Your task to perform on an android device: Go to Google maps Image 0: 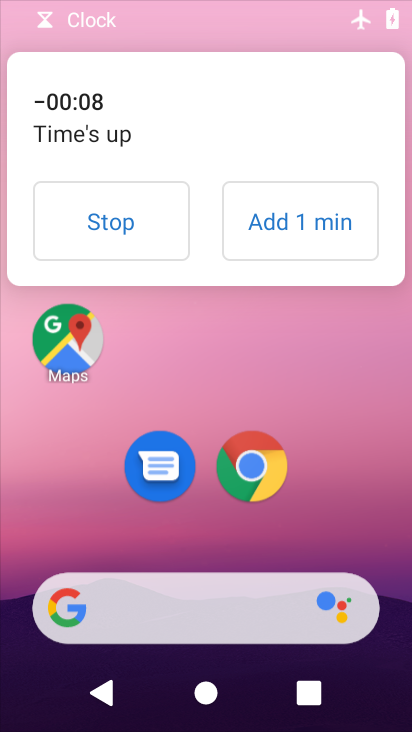
Step 0: click (151, 225)
Your task to perform on an android device: Go to Google maps Image 1: 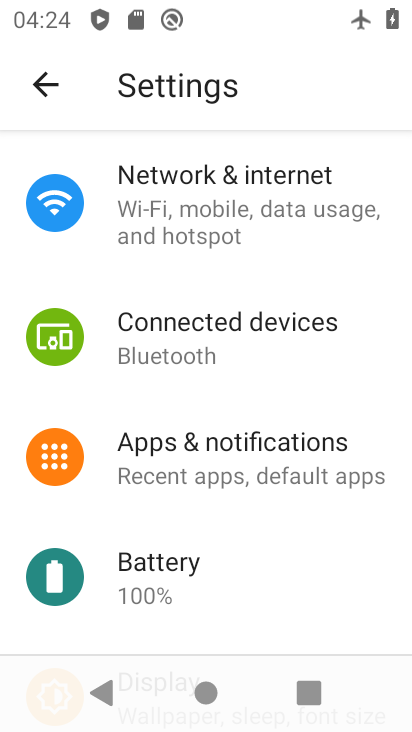
Step 1: press home button
Your task to perform on an android device: Go to Google maps Image 2: 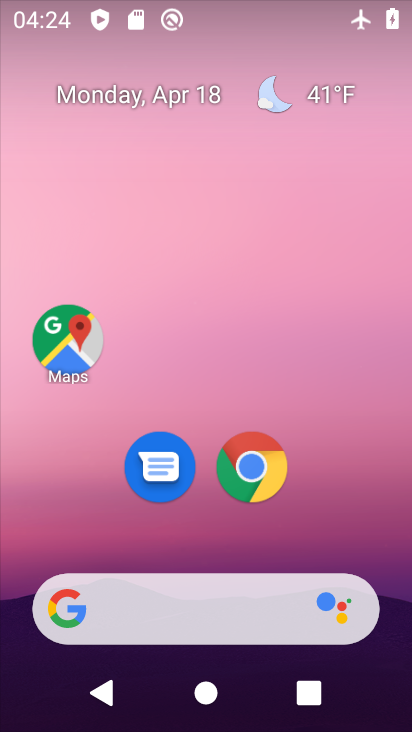
Step 2: drag from (216, 535) to (202, 215)
Your task to perform on an android device: Go to Google maps Image 3: 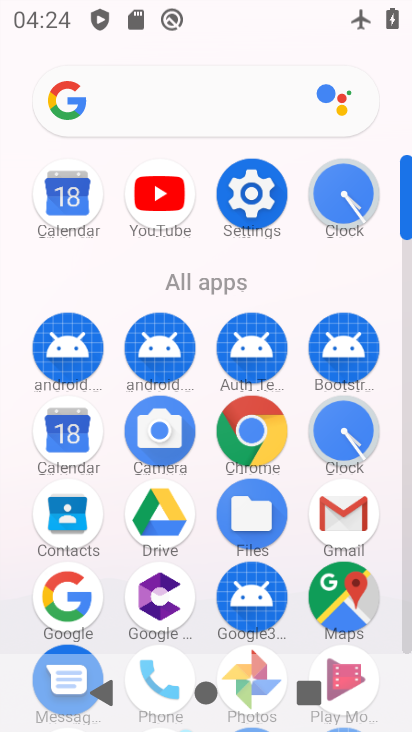
Step 3: click (339, 595)
Your task to perform on an android device: Go to Google maps Image 4: 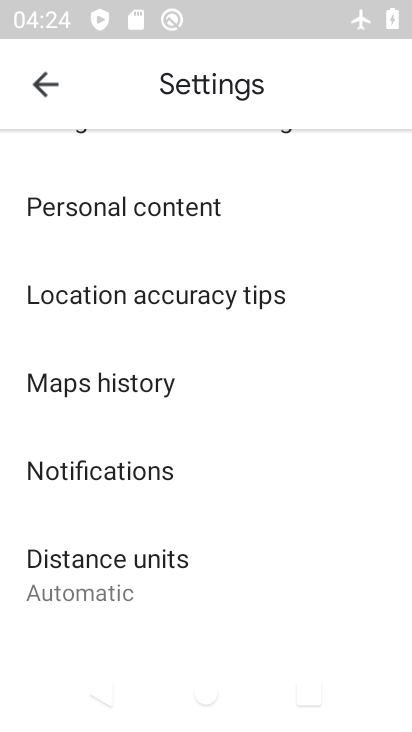
Step 4: click (49, 89)
Your task to perform on an android device: Go to Google maps Image 5: 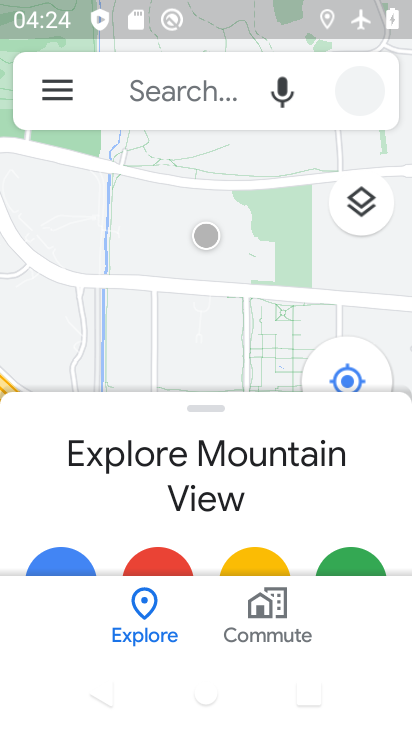
Step 5: click (49, 89)
Your task to perform on an android device: Go to Google maps Image 6: 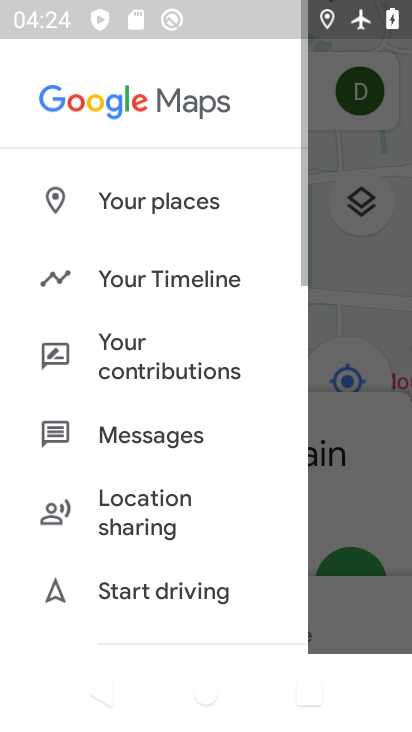
Step 6: click (353, 236)
Your task to perform on an android device: Go to Google maps Image 7: 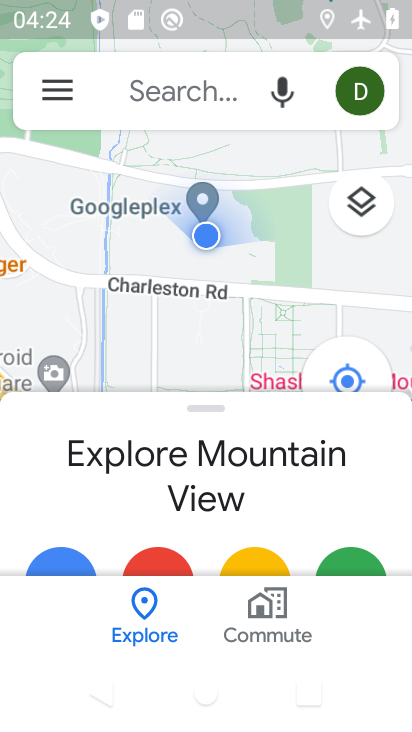
Step 7: task complete